Your task to perform on an android device: open sync settings in chrome Image 0: 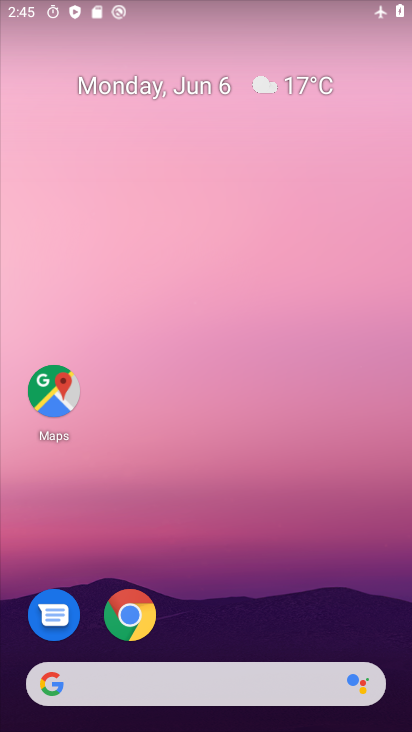
Step 0: click (130, 613)
Your task to perform on an android device: open sync settings in chrome Image 1: 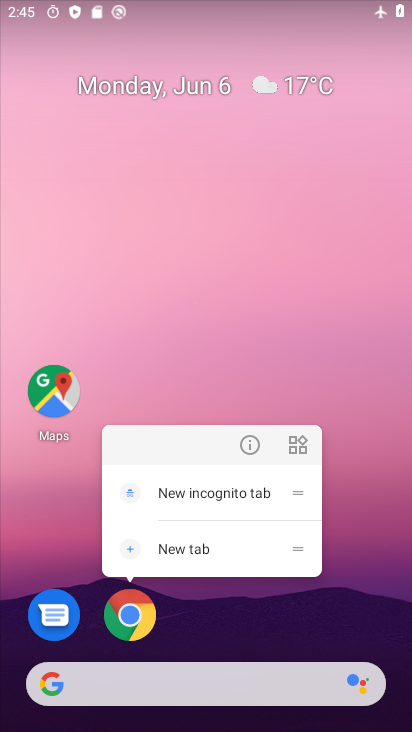
Step 1: click (122, 608)
Your task to perform on an android device: open sync settings in chrome Image 2: 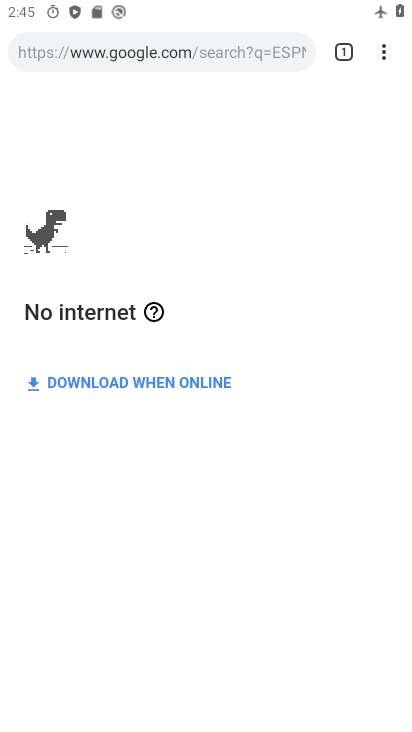
Step 2: click (384, 48)
Your task to perform on an android device: open sync settings in chrome Image 3: 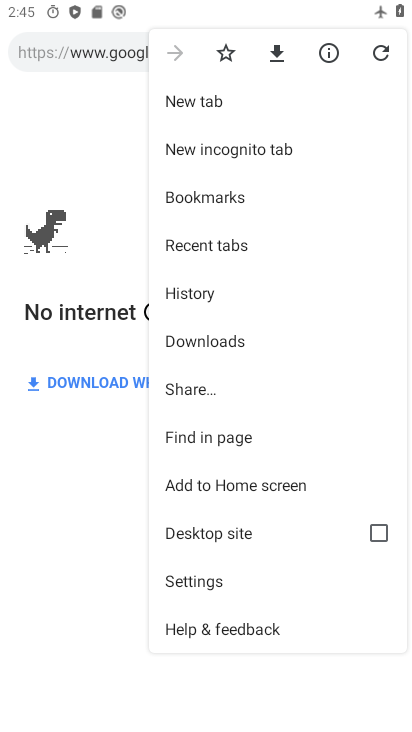
Step 3: click (389, 62)
Your task to perform on an android device: open sync settings in chrome Image 4: 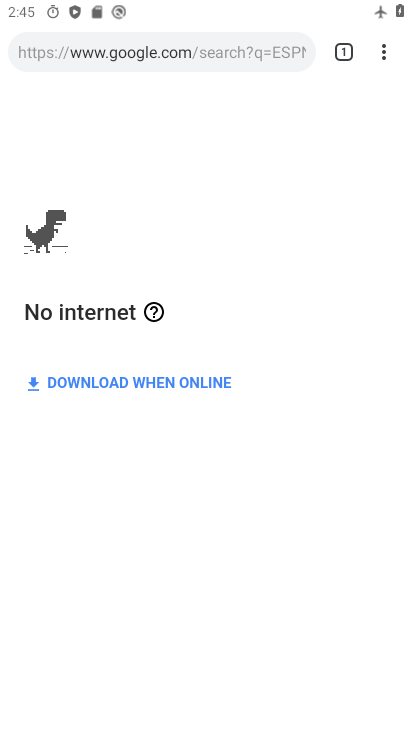
Step 4: click (386, 54)
Your task to perform on an android device: open sync settings in chrome Image 5: 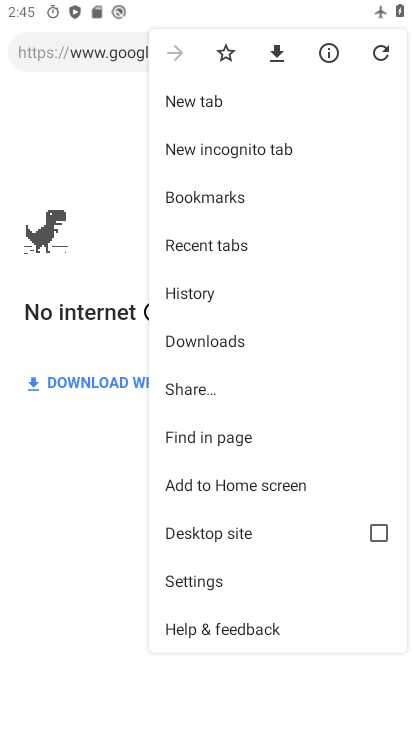
Step 5: click (188, 582)
Your task to perform on an android device: open sync settings in chrome Image 6: 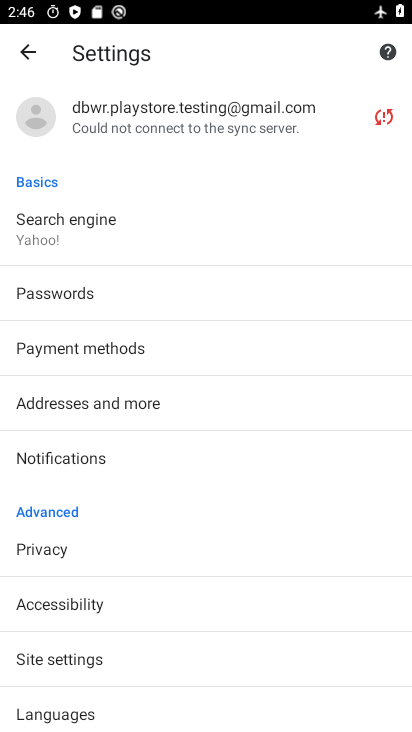
Step 6: click (233, 126)
Your task to perform on an android device: open sync settings in chrome Image 7: 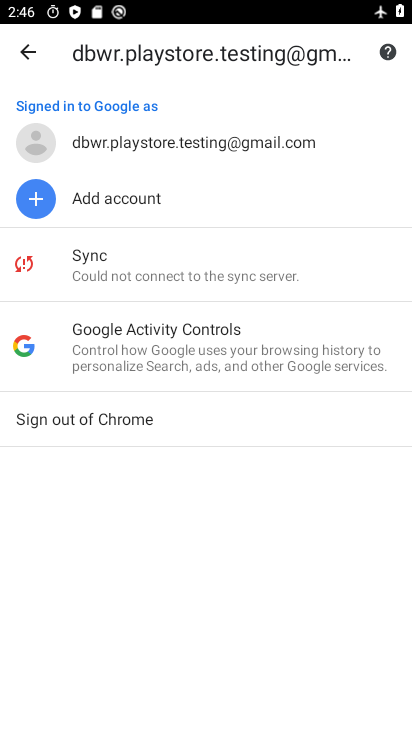
Step 7: click (134, 275)
Your task to perform on an android device: open sync settings in chrome Image 8: 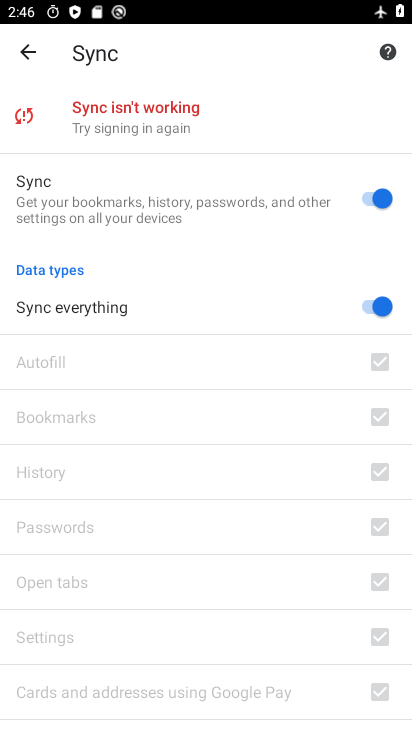
Step 8: click (168, 113)
Your task to perform on an android device: open sync settings in chrome Image 9: 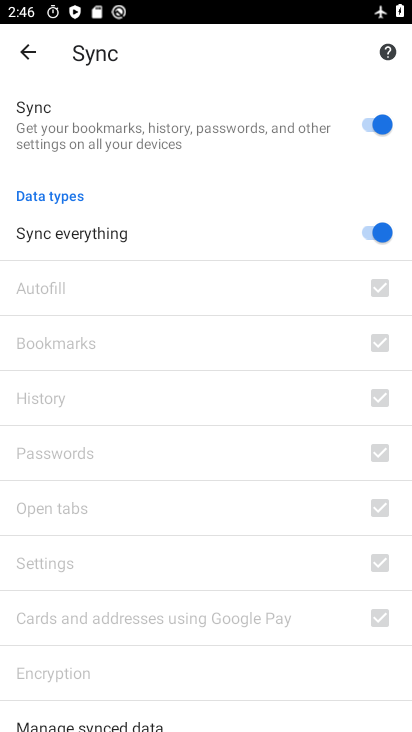
Step 9: task complete